Your task to perform on an android device: check storage Image 0: 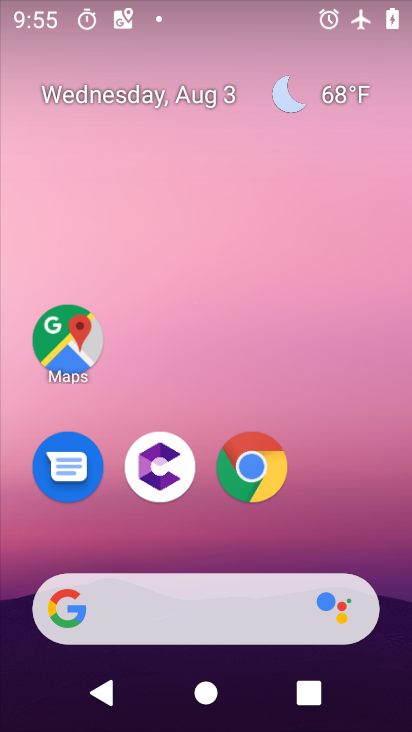
Step 0: drag from (355, 485) to (401, 6)
Your task to perform on an android device: check storage Image 1: 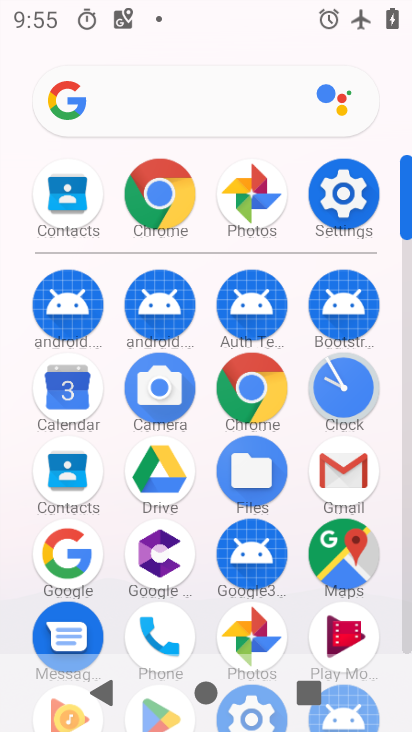
Step 1: click (341, 191)
Your task to perform on an android device: check storage Image 2: 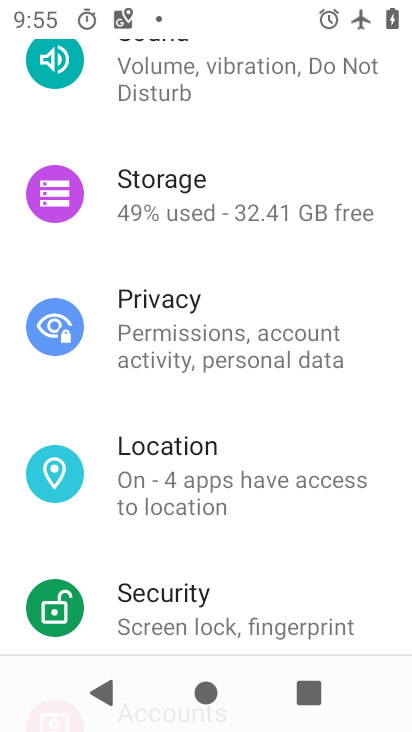
Step 2: click (210, 201)
Your task to perform on an android device: check storage Image 3: 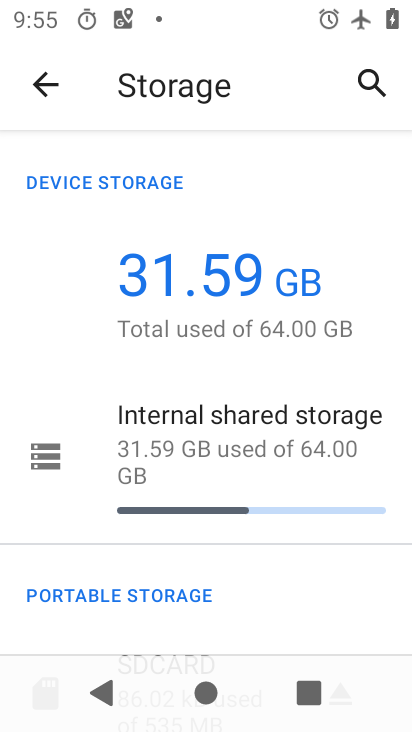
Step 3: task complete